Your task to perform on an android device: open device folders in google photos Image 0: 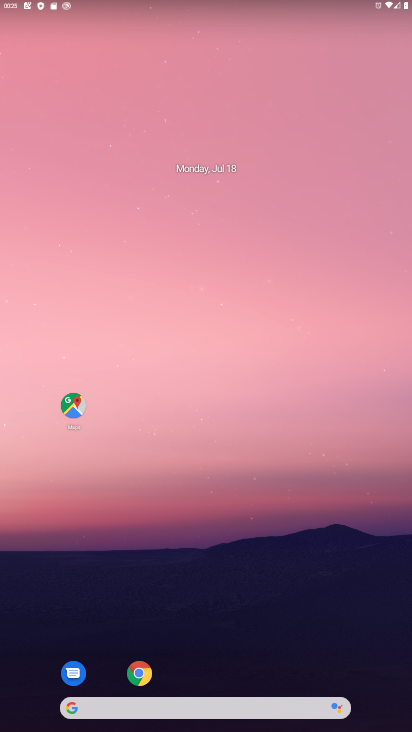
Step 0: drag from (281, 645) to (241, 90)
Your task to perform on an android device: open device folders in google photos Image 1: 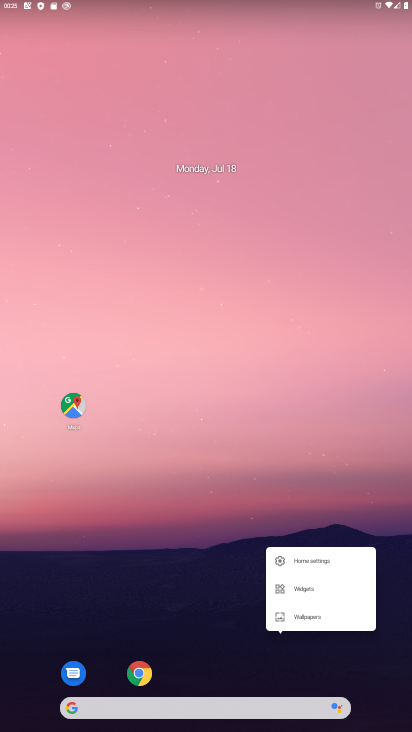
Step 1: click (172, 442)
Your task to perform on an android device: open device folders in google photos Image 2: 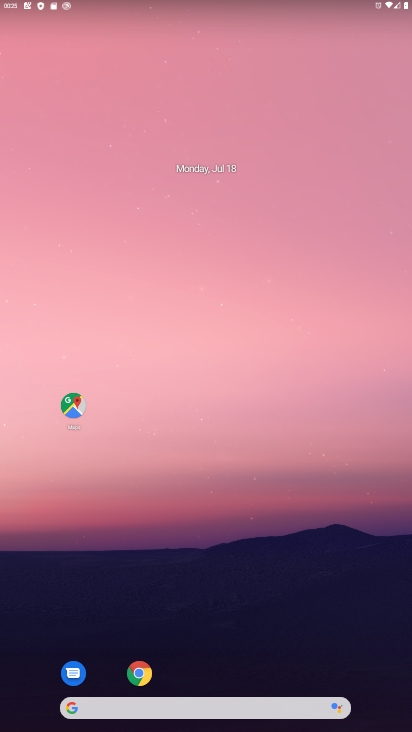
Step 2: drag from (238, 655) to (204, 0)
Your task to perform on an android device: open device folders in google photos Image 3: 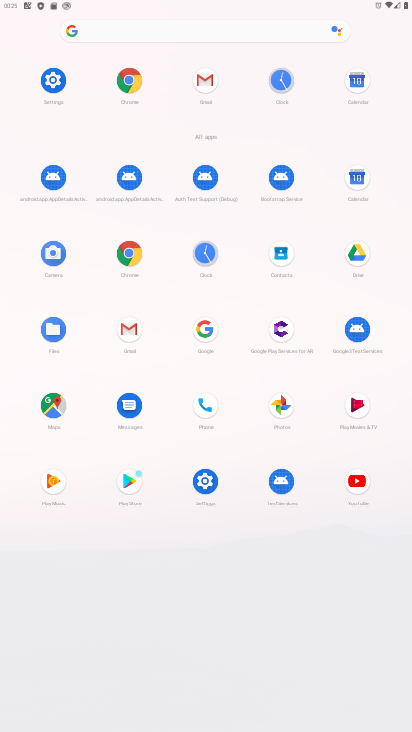
Step 3: click (272, 403)
Your task to perform on an android device: open device folders in google photos Image 4: 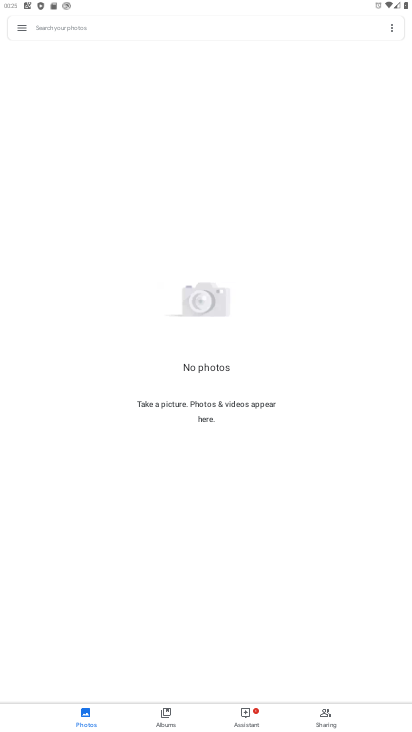
Step 4: click (18, 36)
Your task to perform on an android device: open device folders in google photos Image 5: 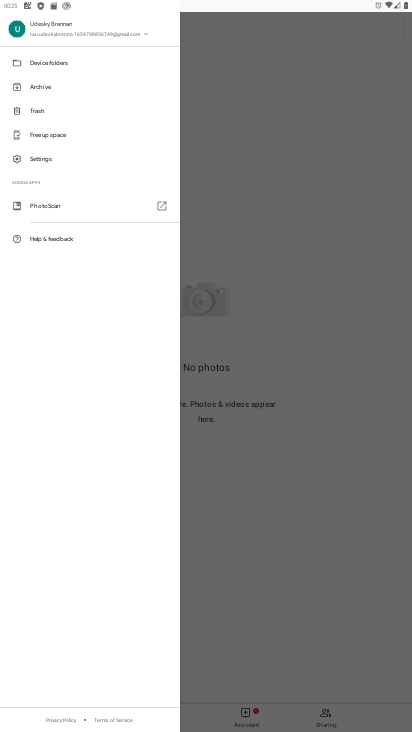
Step 5: click (79, 66)
Your task to perform on an android device: open device folders in google photos Image 6: 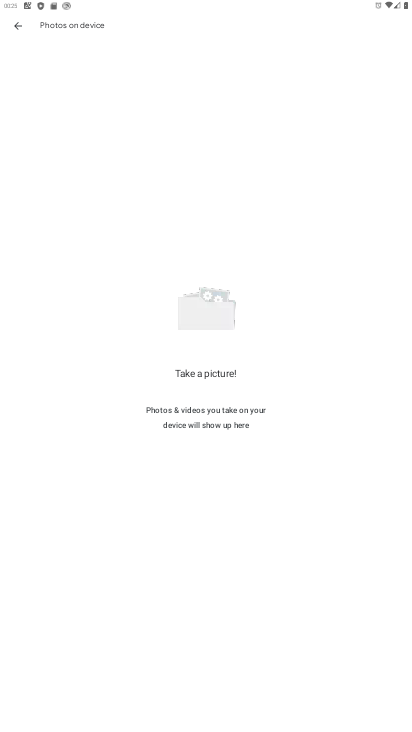
Step 6: task complete